Your task to perform on an android device: find snoozed emails in the gmail app Image 0: 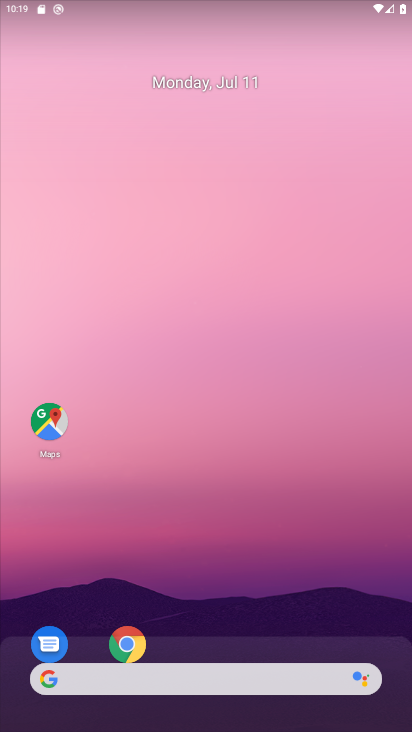
Step 0: drag from (213, 677) to (222, 208)
Your task to perform on an android device: find snoozed emails in the gmail app Image 1: 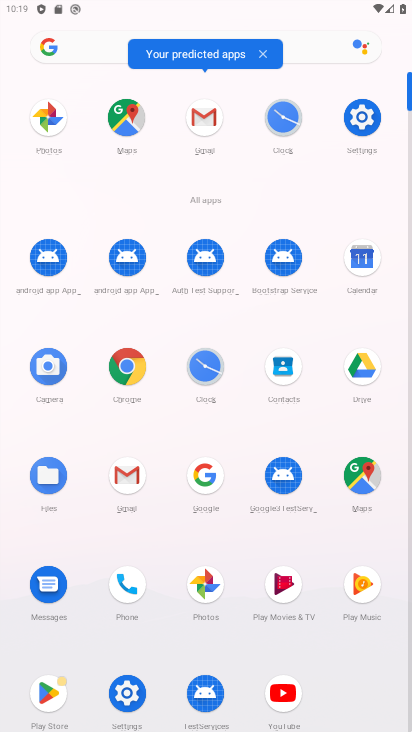
Step 1: click (137, 463)
Your task to perform on an android device: find snoozed emails in the gmail app Image 2: 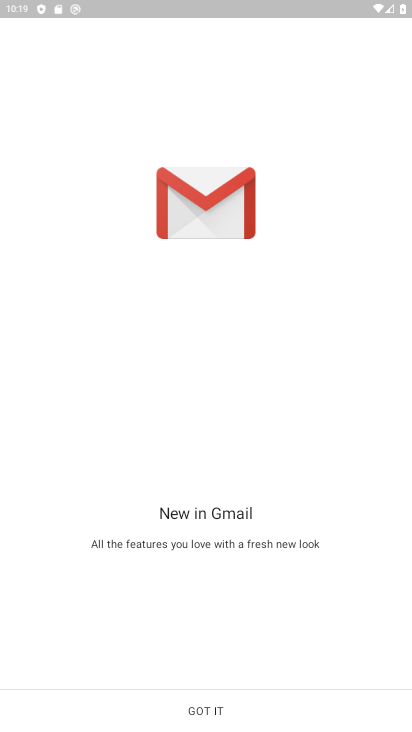
Step 2: click (198, 713)
Your task to perform on an android device: find snoozed emails in the gmail app Image 3: 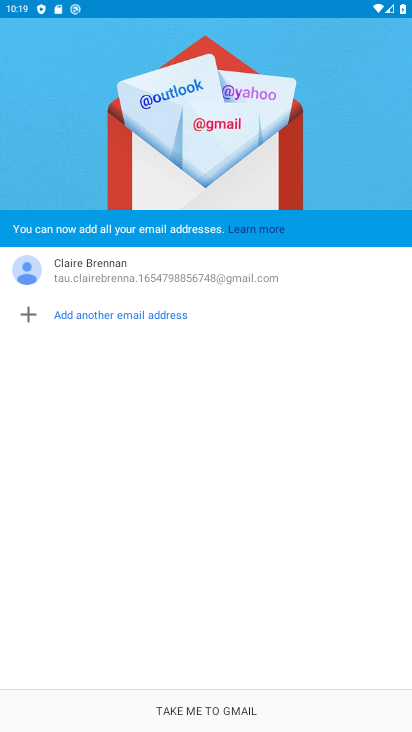
Step 3: click (204, 725)
Your task to perform on an android device: find snoozed emails in the gmail app Image 4: 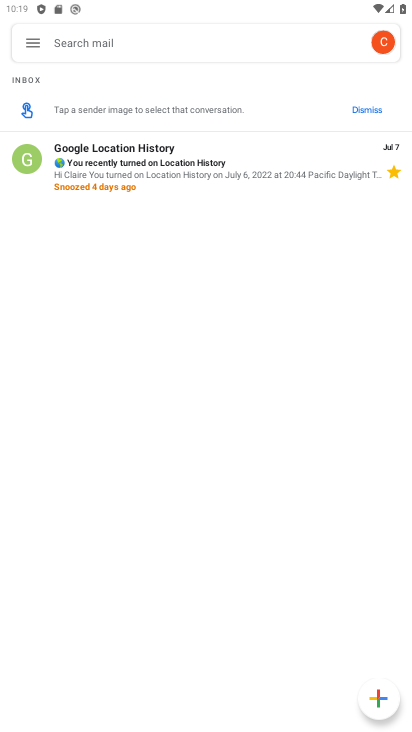
Step 4: click (44, 44)
Your task to perform on an android device: find snoozed emails in the gmail app Image 5: 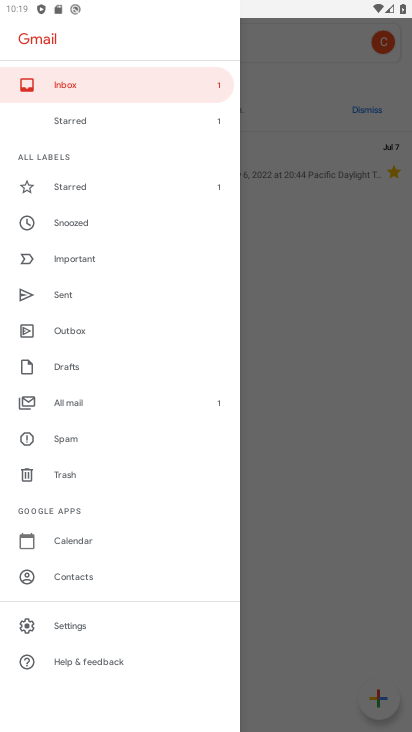
Step 5: click (84, 228)
Your task to perform on an android device: find snoozed emails in the gmail app Image 6: 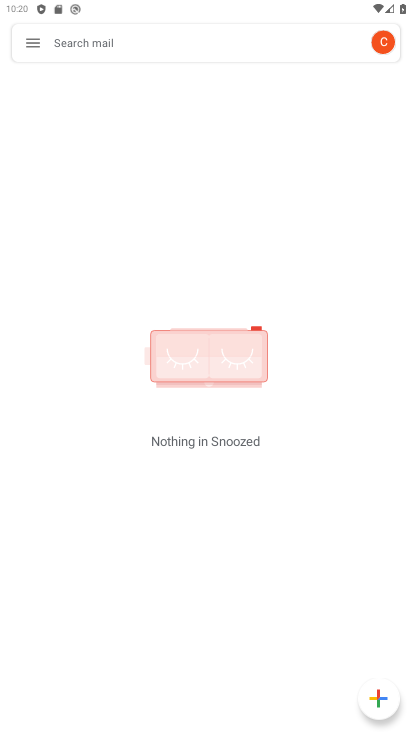
Step 6: task complete